Your task to perform on an android device: Is it going to rain tomorrow? Image 0: 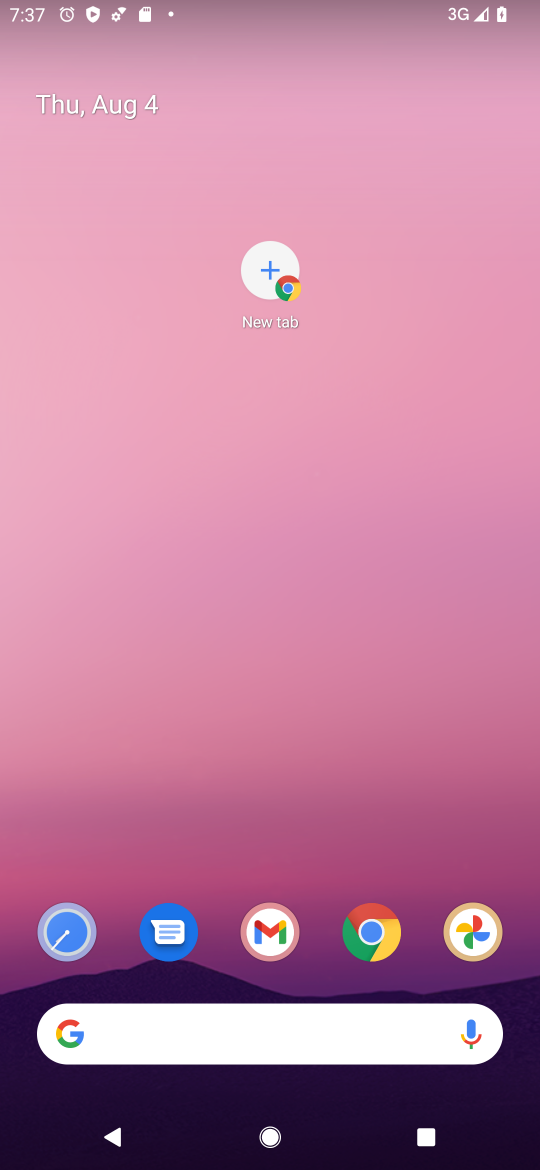
Step 0: drag from (272, 957) to (206, 364)
Your task to perform on an android device: Is it going to rain tomorrow? Image 1: 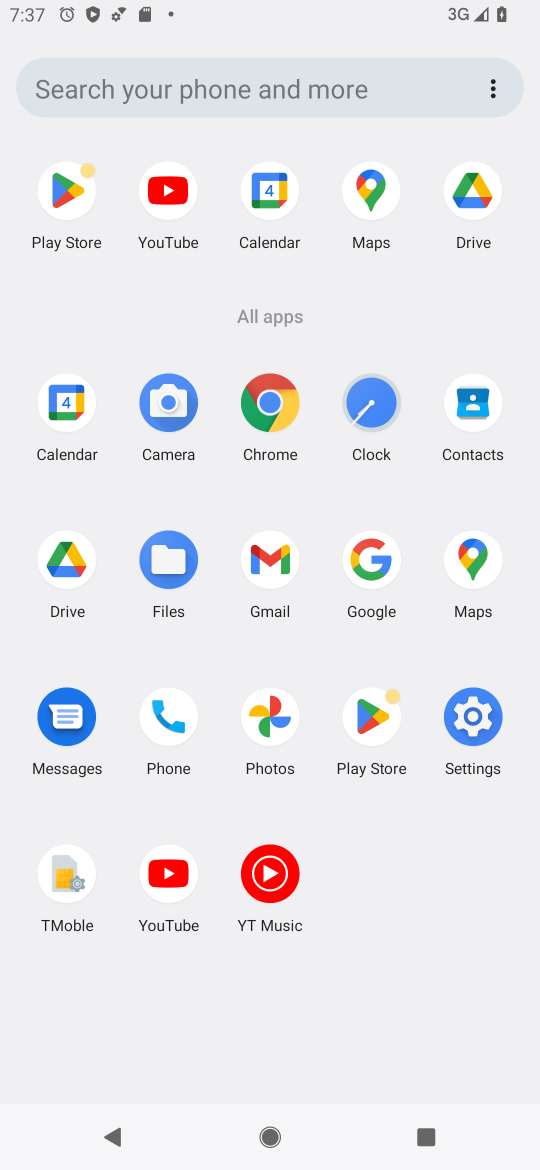
Step 1: click (286, 405)
Your task to perform on an android device: Is it going to rain tomorrow? Image 2: 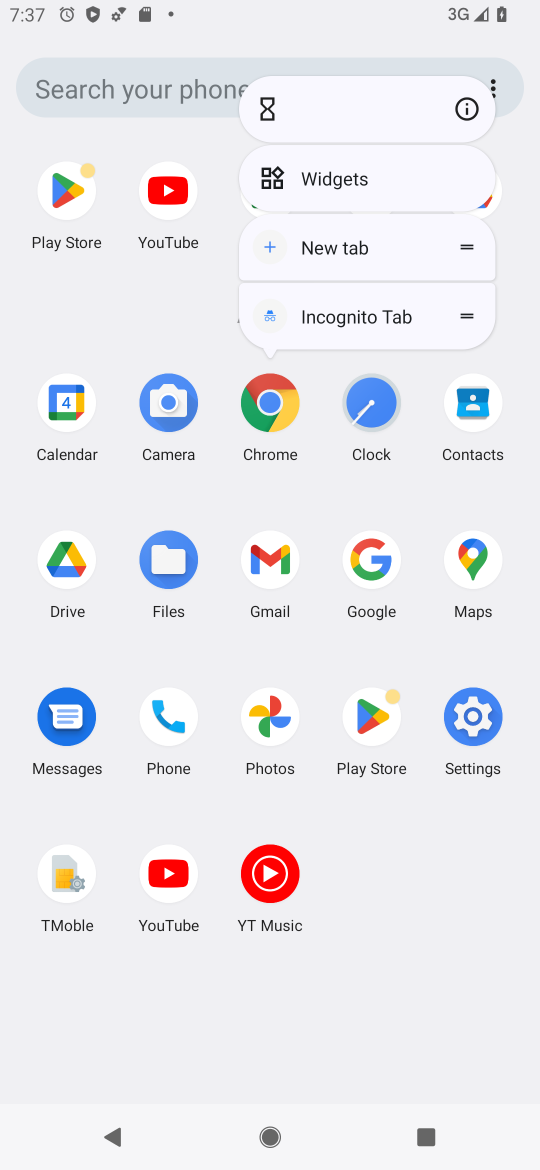
Step 2: click (282, 412)
Your task to perform on an android device: Is it going to rain tomorrow? Image 3: 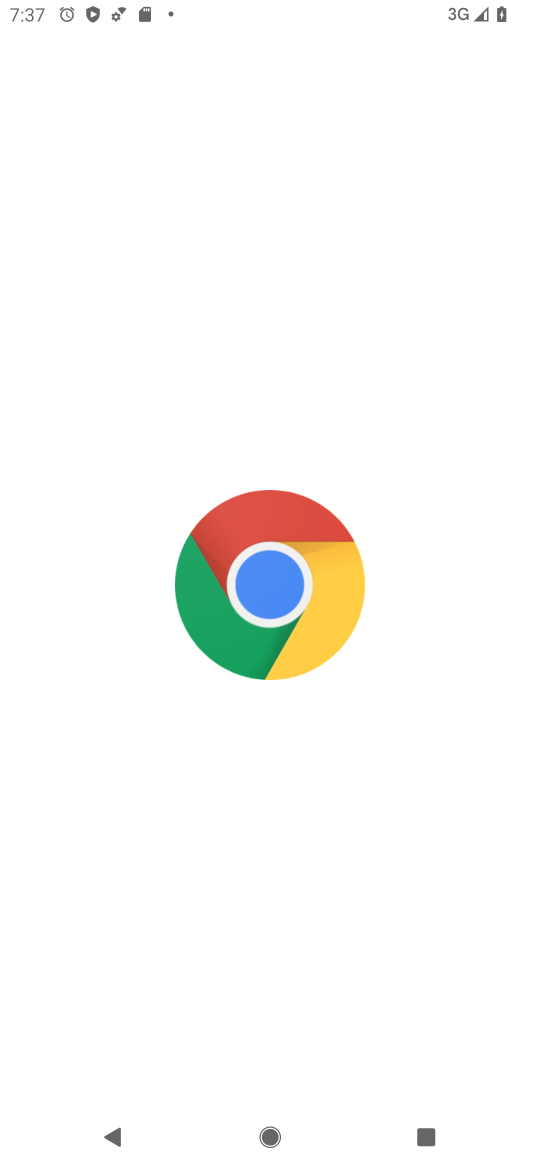
Step 3: click (282, 412)
Your task to perform on an android device: Is it going to rain tomorrow? Image 4: 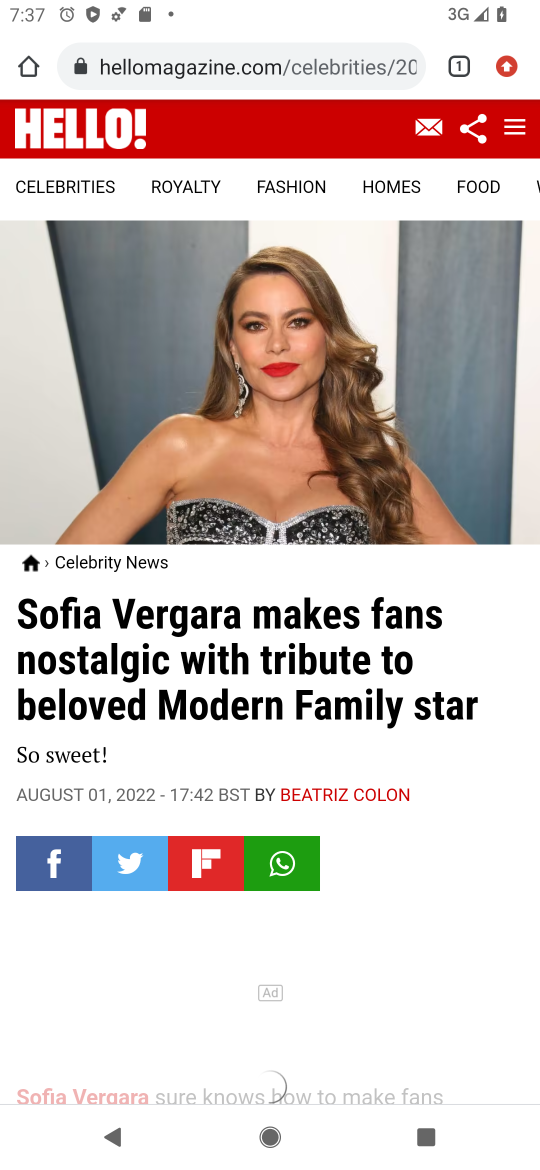
Step 4: drag from (500, 60) to (498, 907)
Your task to perform on an android device: Is it going to rain tomorrow? Image 5: 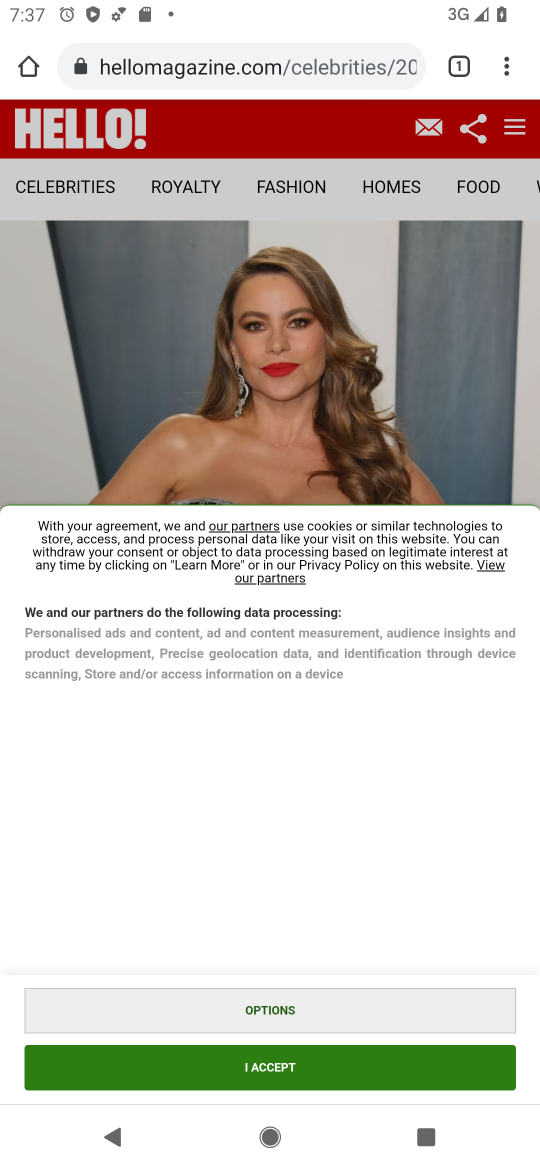
Step 5: click (507, 63)
Your task to perform on an android device: Is it going to rain tomorrow? Image 6: 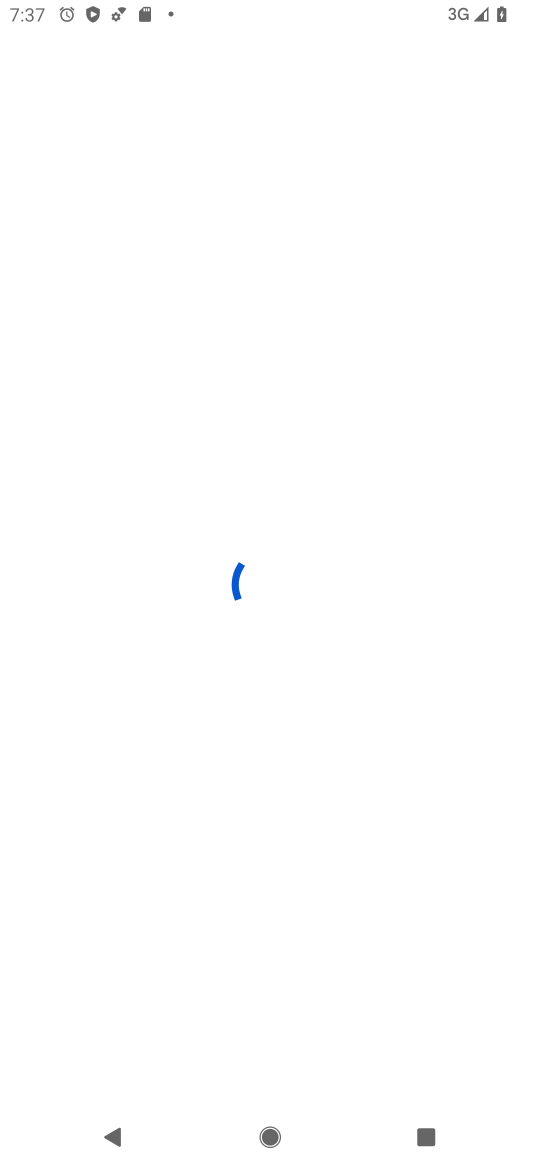
Step 6: drag from (513, 66) to (410, 195)
Your task to perform on an android device: Is it going to rain tomorrow? Image 7: 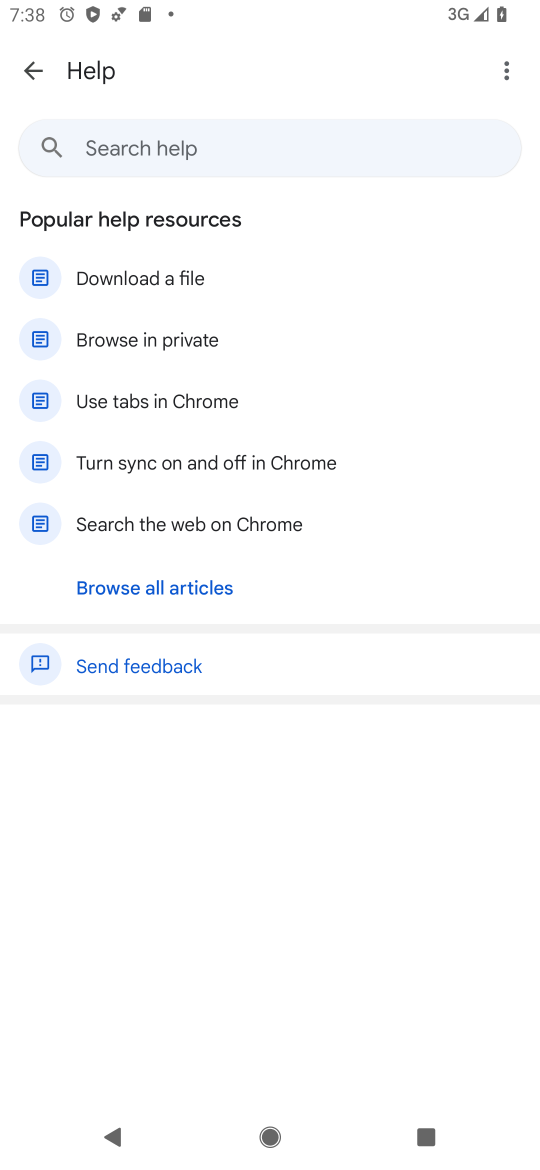
Step 7: click (24, 66)
Your task to perform on an android device: Is it going to rain tomorrow? Image 8: 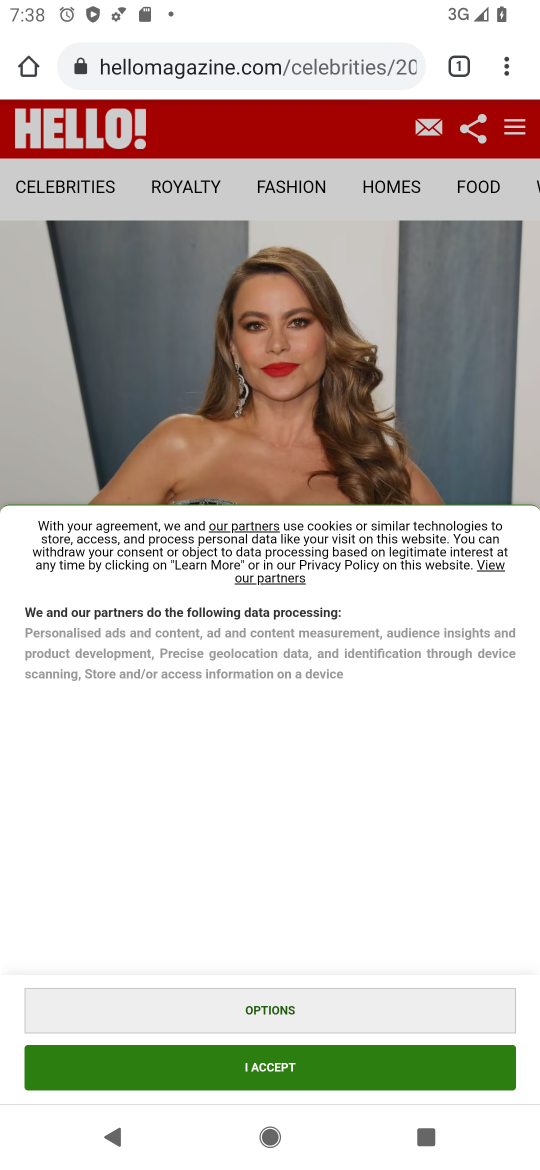
Step 8: drag from (502, 66) to (321, 205)
Your task to perform on an android device: Is it going to rain tomorrow? Image 9: 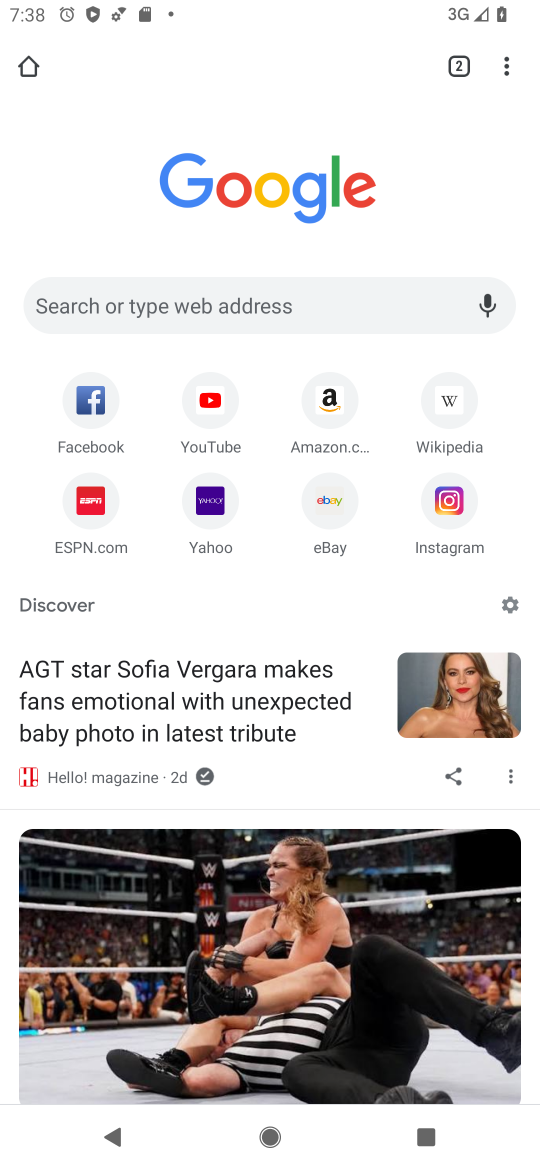
Step 9: click (72, 286)
Your task to perform on an android device: Is it going to rain tomorrow? Image 10: 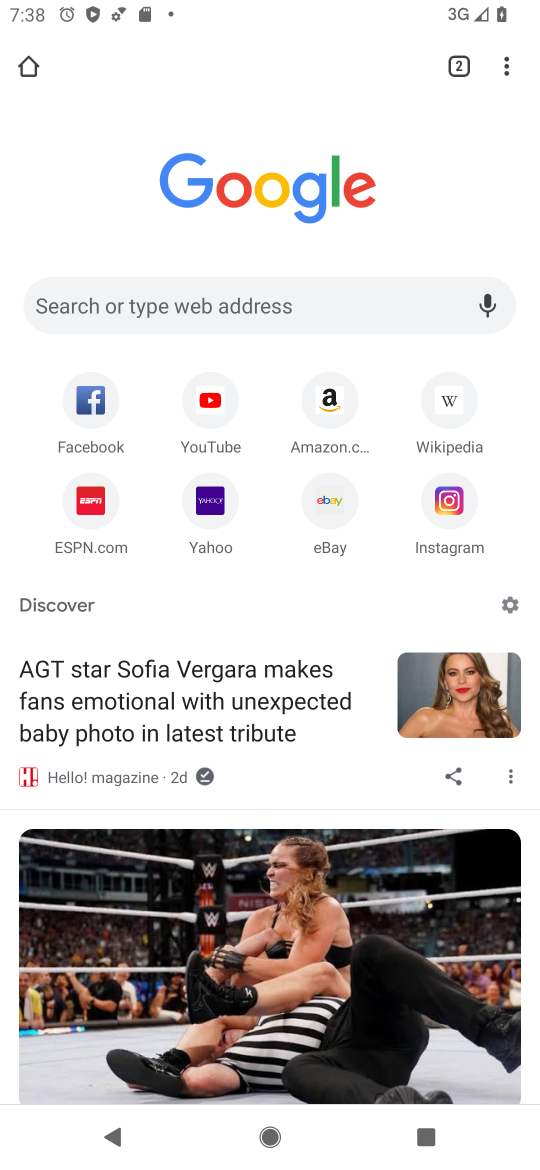
Step 10: click (89, 298)
Your task to perform on an android device: Is it going to rain tomorrow? Image 11: 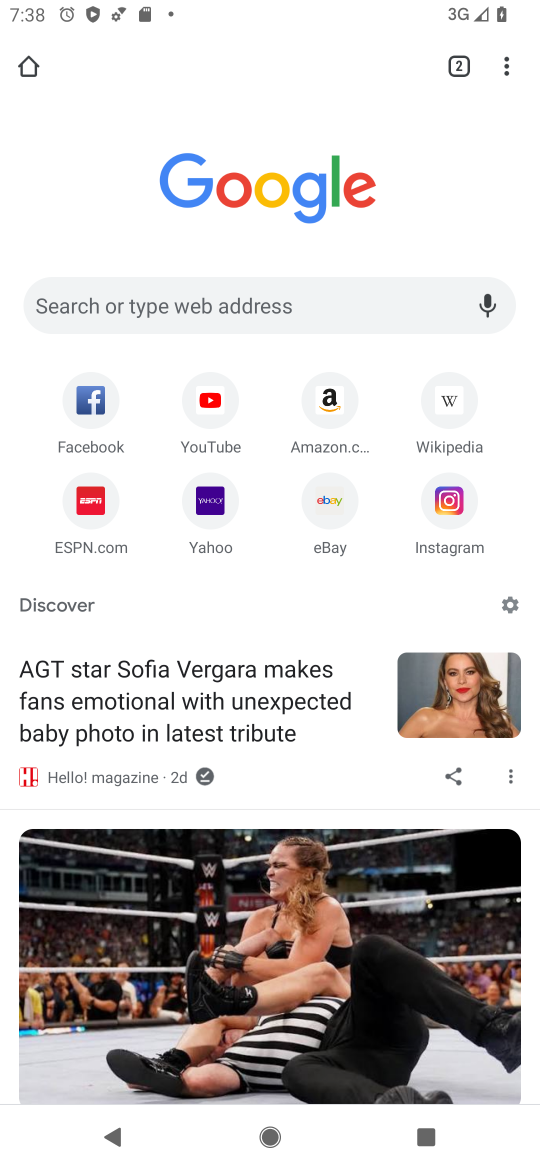
Step 11: click (110, 300)
Your task to perform on an android device: Is it going to rain tomorrow? Image 12: 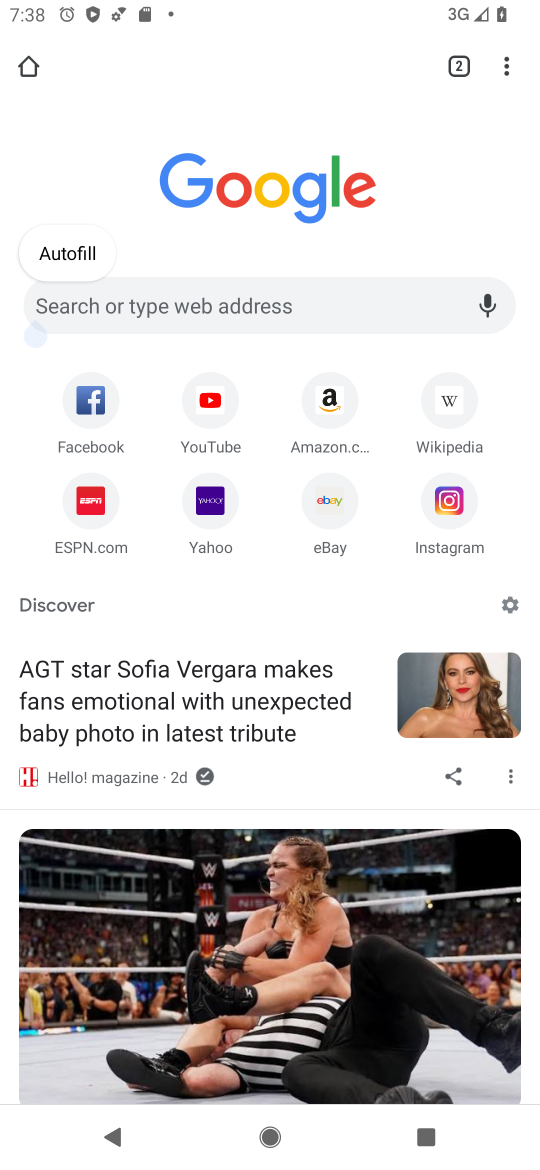
Step 12: click (65, 303)
Your task to perform on an android device: Is it going to rain tomorrow? Image 13: 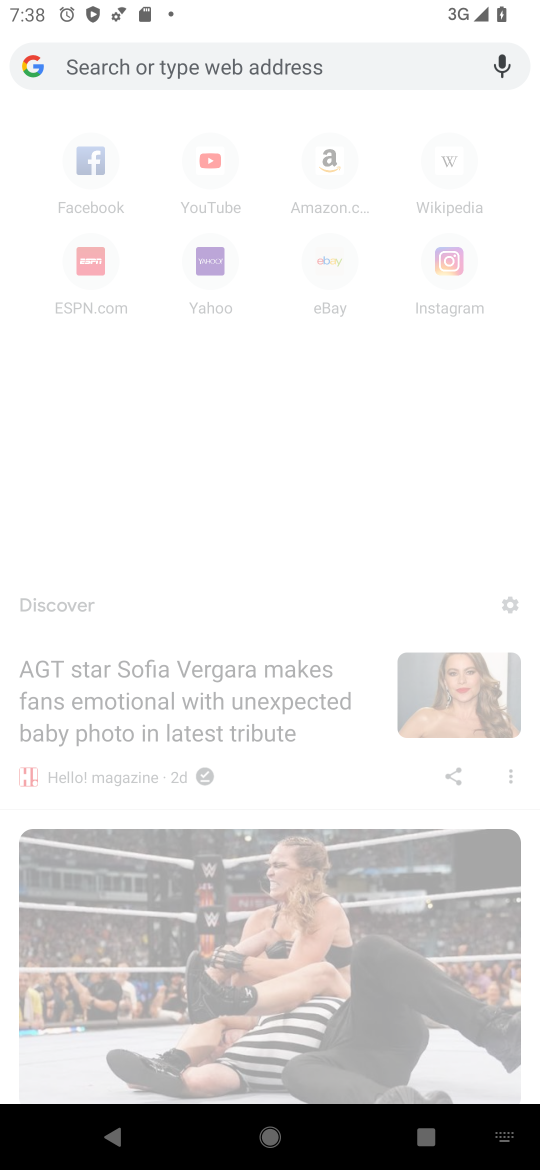
Step 13: type "is it to rain tomorrow"
Your task to perform on an android device: Is it going to rain tomorrow? Image 14: 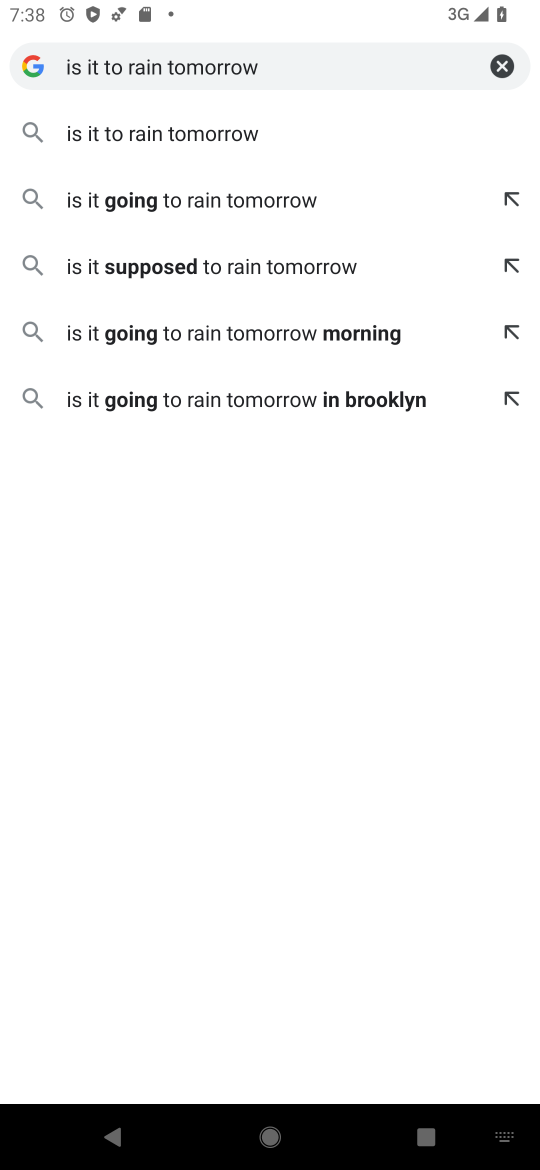
Step 14: click (198, 190)
Your task to perform on an android device: Is it going to rain tomorrow? Image 15: 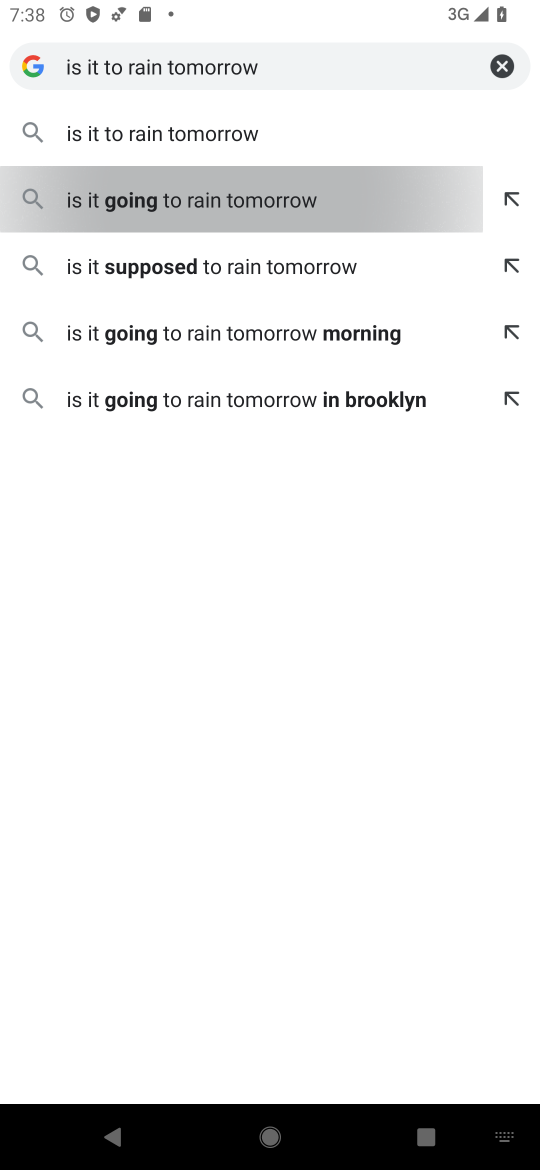
Step 15: click (198, 193)
Your task to perform on an android device: Is it going to rain tomorrow? Image 16: 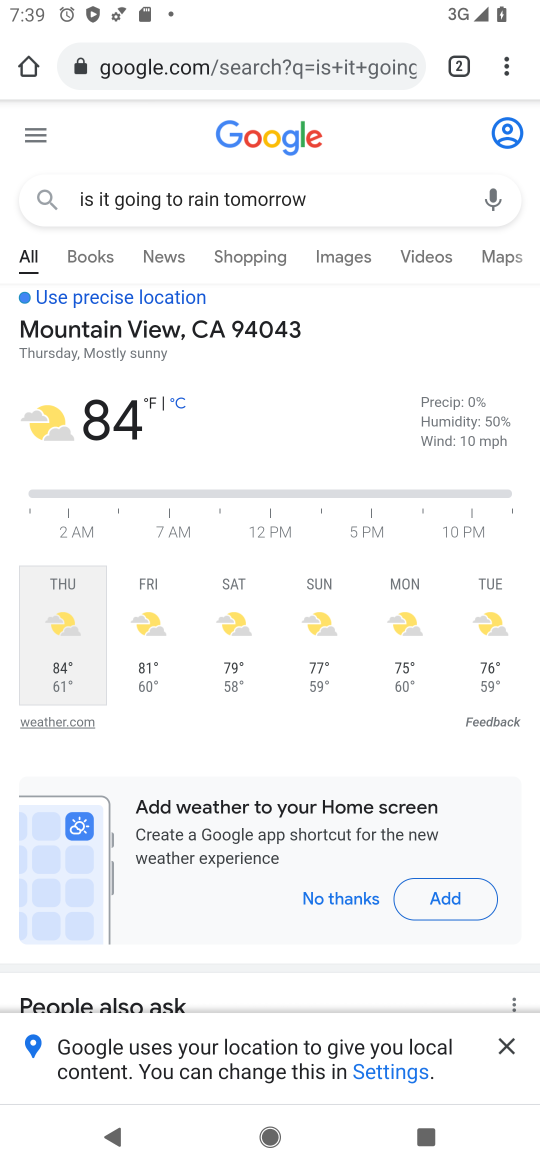
Step 16: task complete